Your task to perform on an android device: Open calendar and show me the second week of next month Image 0: 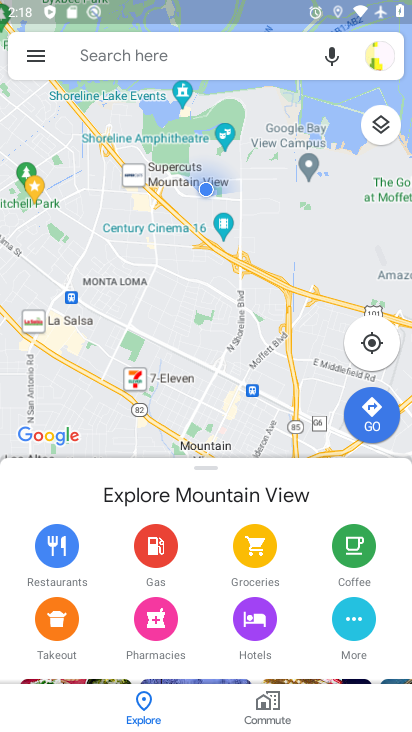
Step 0: press home button
Your task to perform on an android device: Open calendar and show me the second week of next month Image 1: 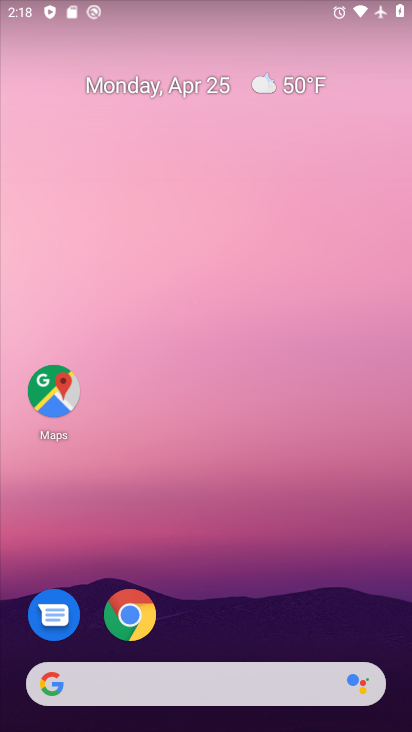
Step 1: drag from (211, 548) to (177, 140)
Your task to perform on an android device: Open calendar and show me the second week of next month Image 2: 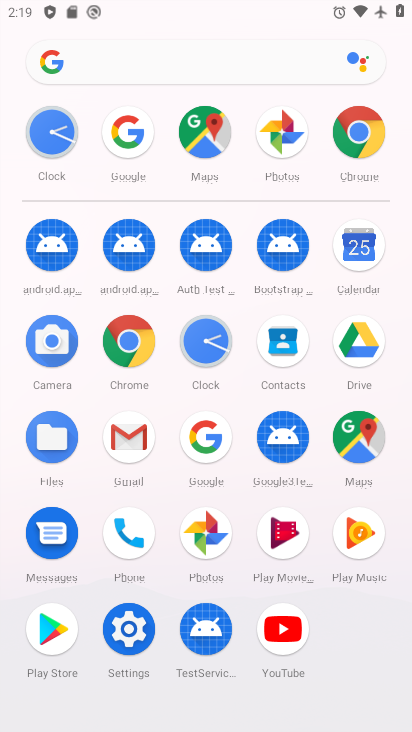
Step 2: click (354, 248)
Your task to perform on an android device: Open calendar and show me the second week of next month Image 3: 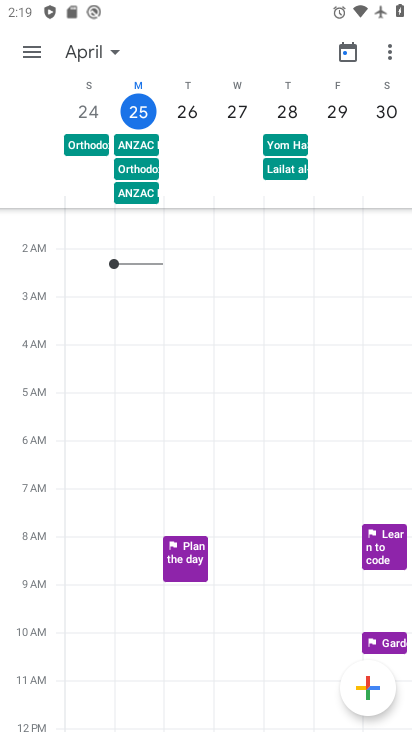
Step 3: click (348, 56)
Your task to perform on an android device: Open calendar and show me the second week of next month Image 4: 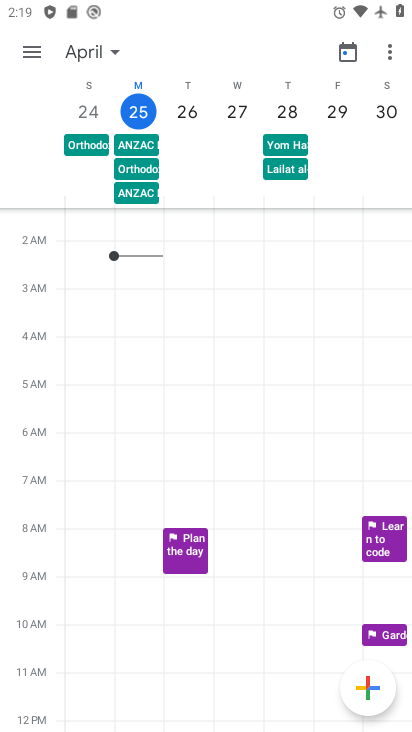
Step 4: click (117, 53)
Your task to perform on an android device: Open calendar and show me the second week of next month Image 5: 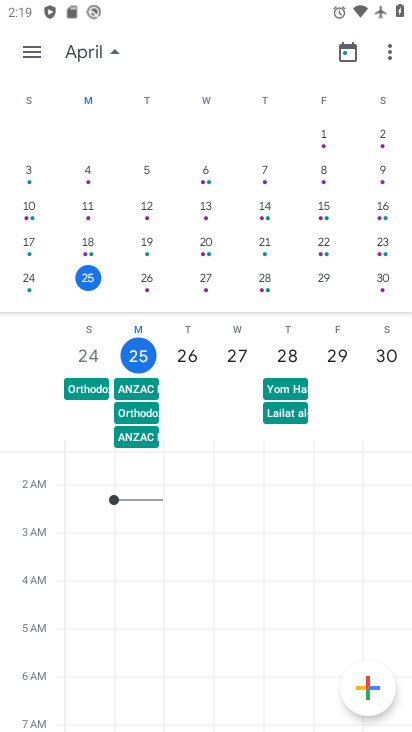
Step 5: drag from (354, 215) to (0, 265)
Your task to perform on an android device: Open calendar and show me the second week of next month Image 6: 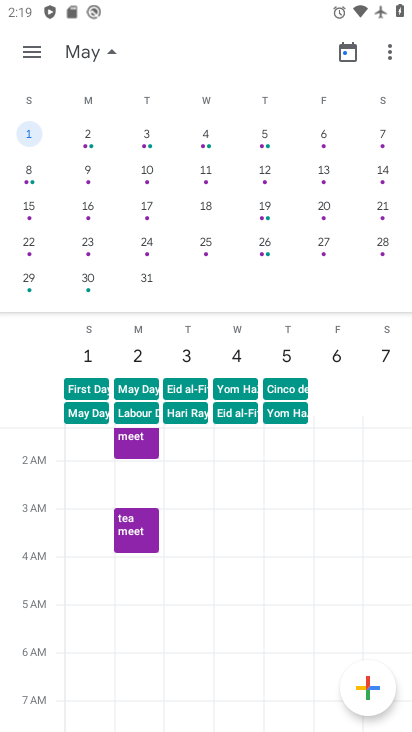
Step 6: click (93, 173)
Your task to perform on an android device: Open calendar and show me the second week of next month Image 7: 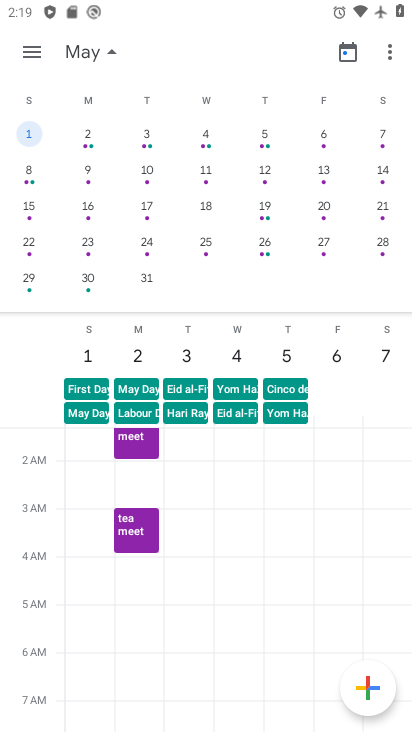
Step 7: click (91, 178)
Your task to perform on an android device: Open calendar and show me the second week of next month Image 8: 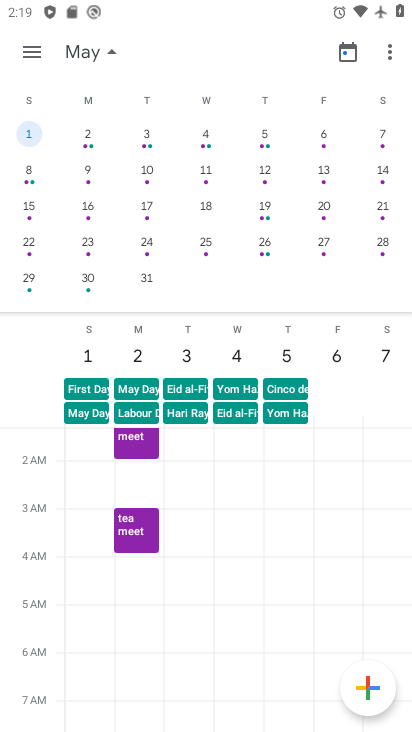
Step 8: click (90, 167)
Your task to perform on an android device: Open calendar and show me the second week of next month Image 9: 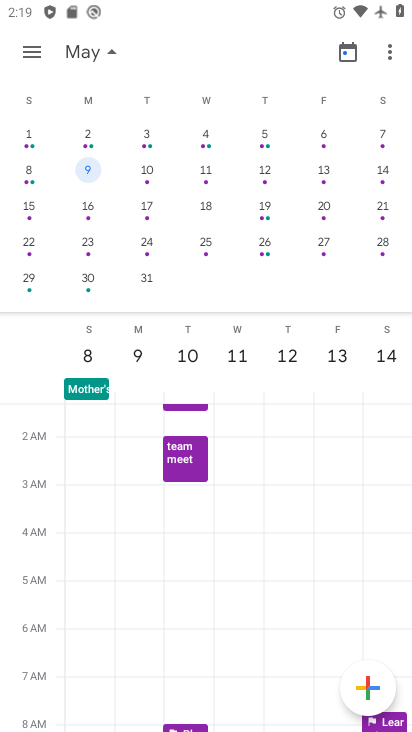
Step 9: click (38, 54)
Your task to perform on an android device: Open calendar and show me the second week of next month Image 10: 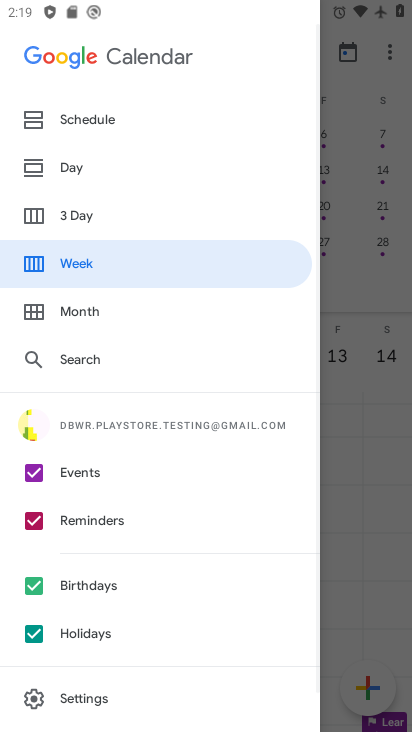
Step 10: click (86, 265)
Your task to perform on an android device: Open calendar and show me the second week of next month Image 11: 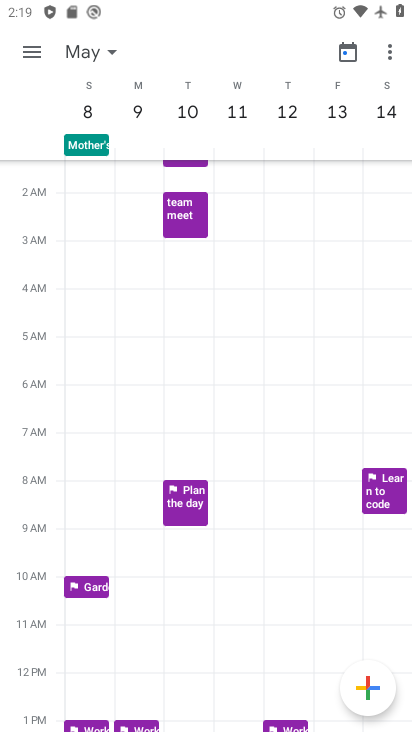
Step 11: task complete